Your task to perform on an android device: Open calendar and show me the fourth week of next month Image 0: 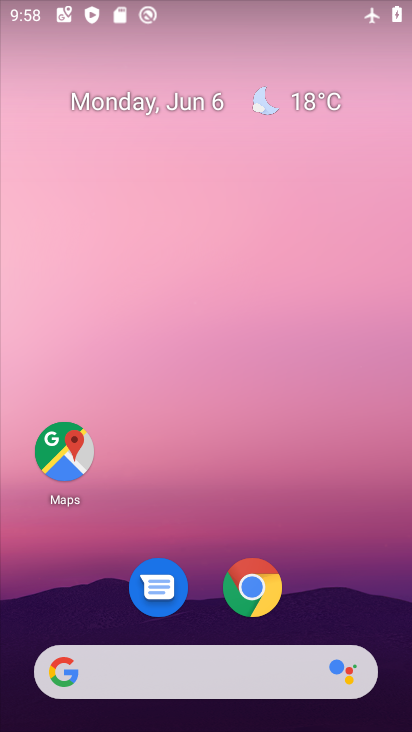
Step 0: drag from (332, 601) to (299, 148)
Your task to perform on an android device: Open calendar and show me the fourth week of next month Image 1: 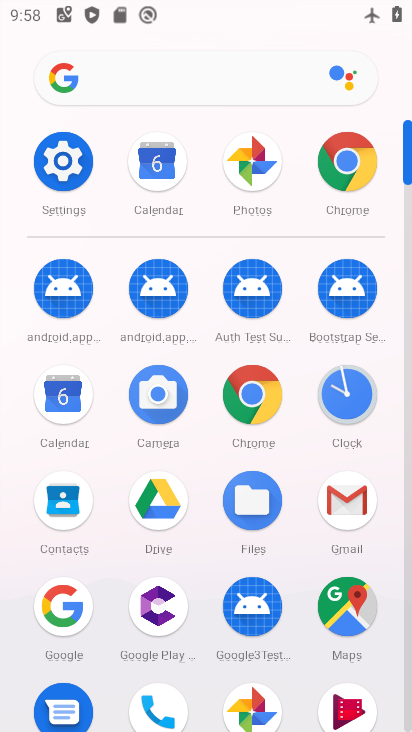
Step 1: click (59, 387)
Your task to perform on an android device: Open calendar and show me the fourth week of next month Image 2: 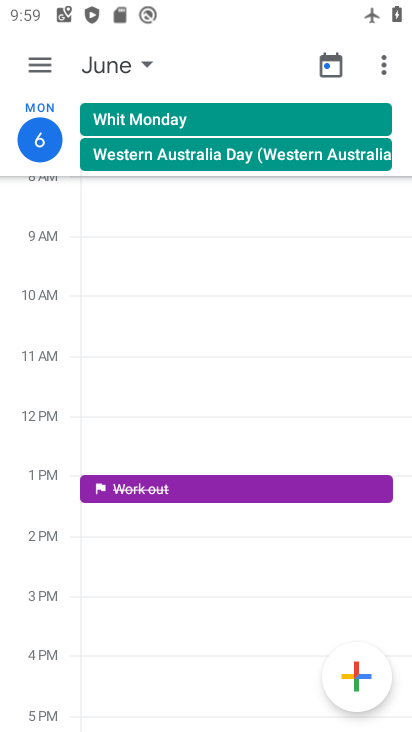
Step 2: click (143, 52)
Your task to perform on an android device: Open calendar and show me the fourth week of next month Image 3: 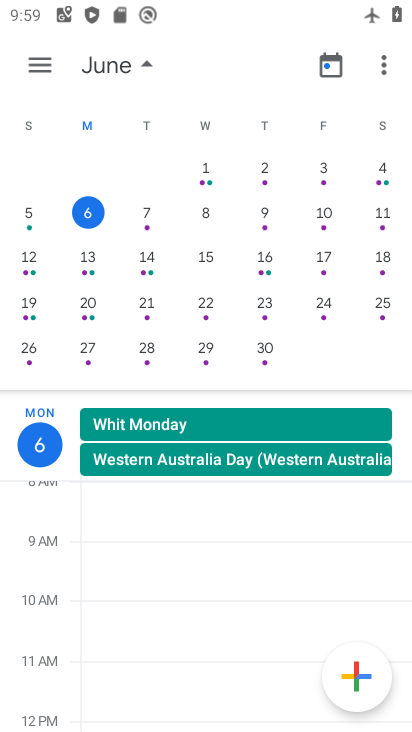
Step 3: drag from (358, 290) to (102, 269)
Your task to perform on an android device: Open calendar and show me the fourth week of next month Image 4: 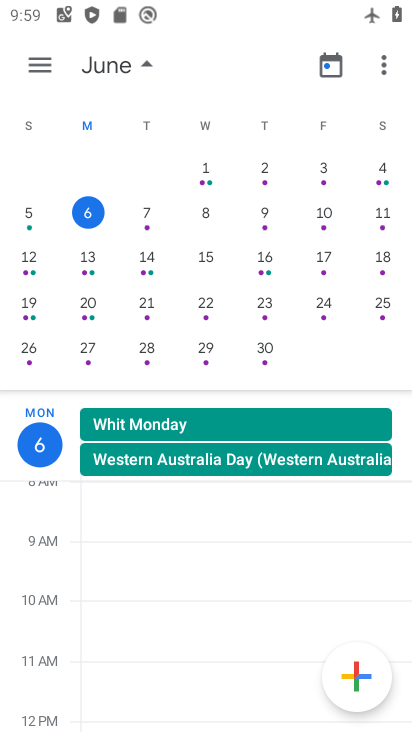
Step 4: drag from (389, 286) to (53, 264)
Your task to perform on an android device: Open calendar and show me the fourth week of next month Image 5: 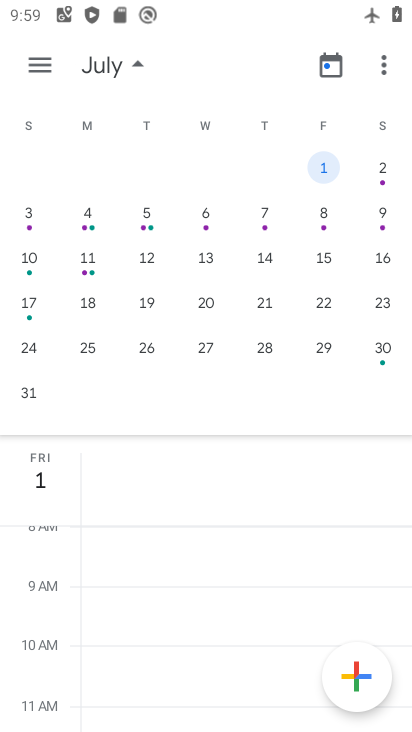
Step 5: click (28, 354)
Your task to perform on an android device: Open calendar and show me the fourth week of next month Image 6: 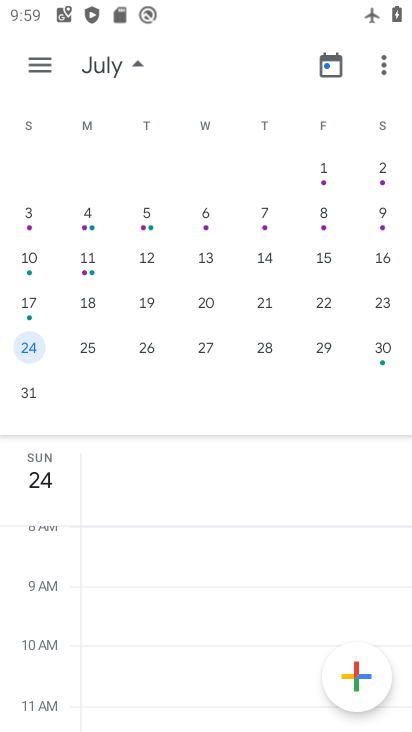
Step 6: click (44, 70)
Your task to perform on an android device: Open calendar and show me the fourth week of next month Image 7: 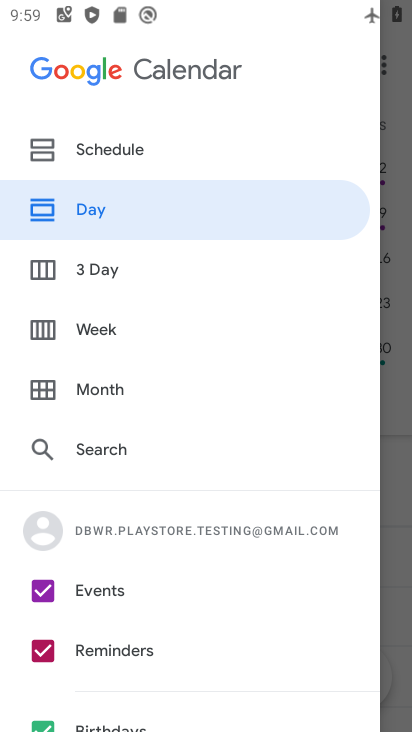
Step 7: click (81, 323)
Your task to perform on an android device: Open calendar and show me the fourth week of next month Image 8: 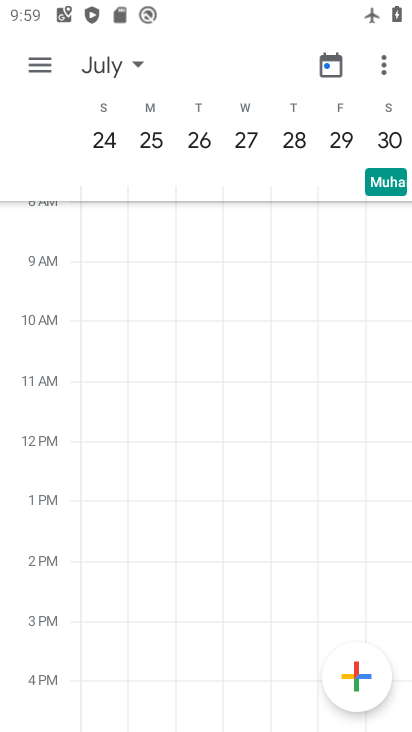
Step 8: task complete